Your task to perform on an android device: Search for Italian restaurants on Maps Image 0: 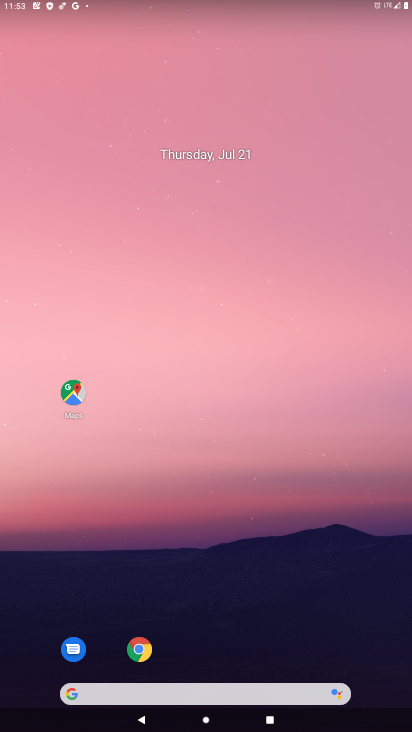
Step 0: drag from (249, 535) to (282, 163)
Your task to perform on an android device: Search for Italian restaurants on Maps Image 1: 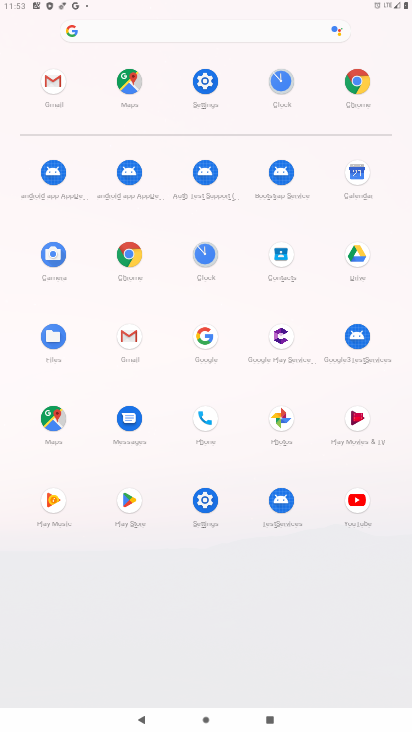
Step 1: click (133, 78)
Your task to perform on an android device: Search for Italian restaurants on Maps Image 2: 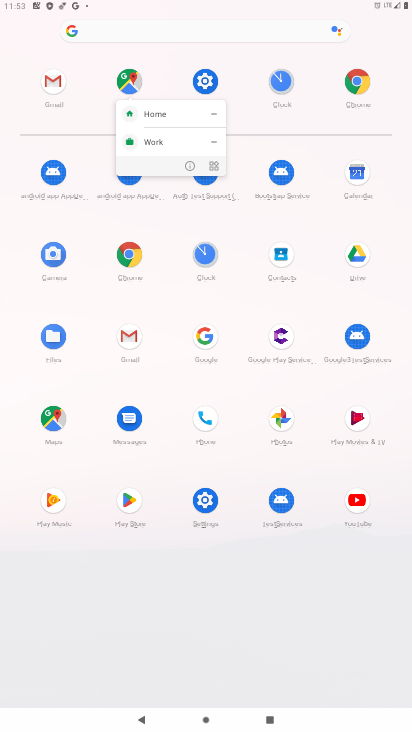
Step 2: click (119, 77)
Your task to perform on an android device: Search for Italian restaurants on Maps Image 3: 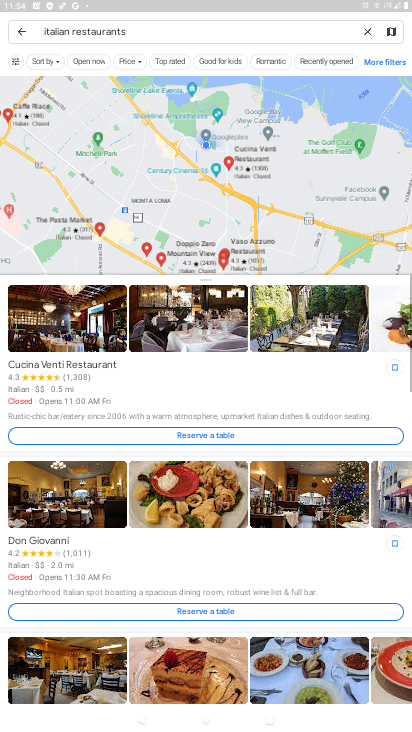
Step 3: task complete